Your task to perform on an android device: Open calendar and show me the third week of next month Image 0: 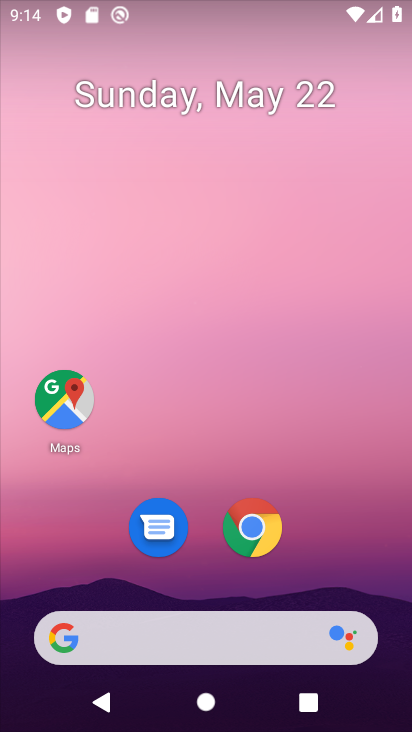
Step 0: drag from (333, 569) to (319, 70)
Your task to perform on an android device: Open calendar and show me the third week of next month Image 1: 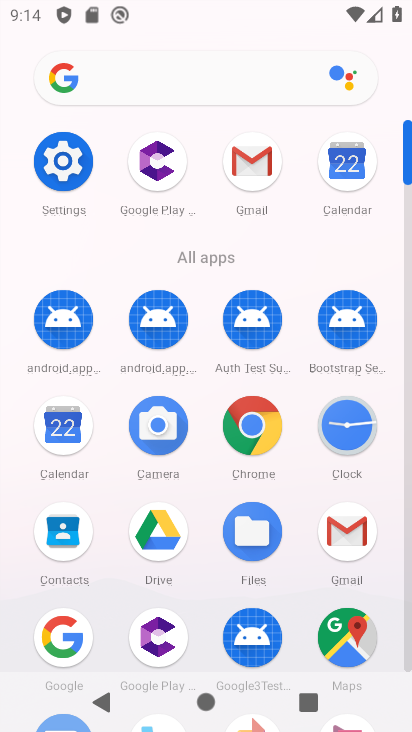
Step 1: click (55, 178)
Your task to perform on an android device: Open calendar and show me the third week of next month Image 2: 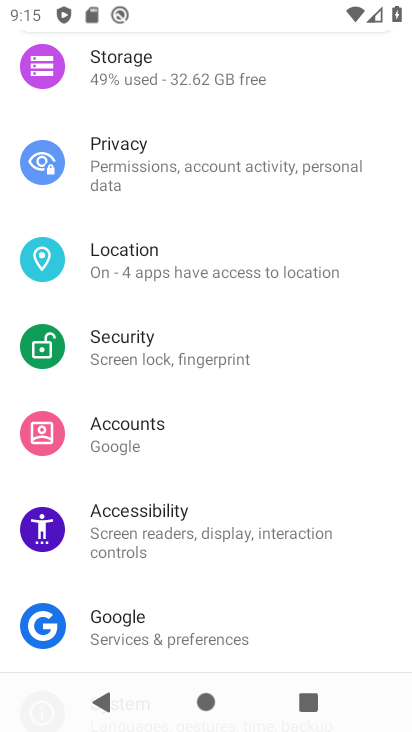
Step 2: press home button
Your task to perform on an android device: Open calendar and show me the third week of next month Image 3: 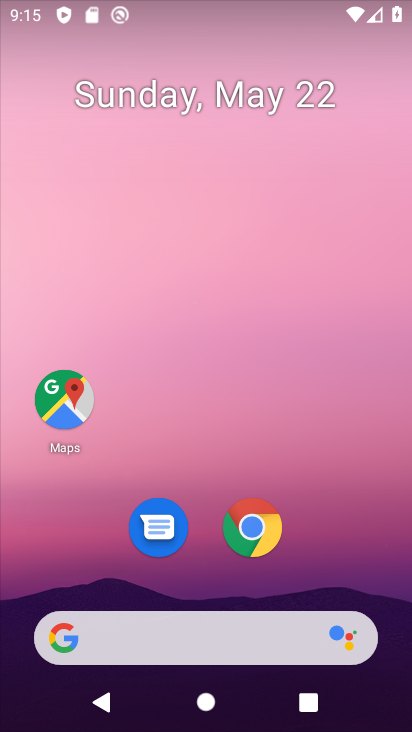
Step 3: drag from (364, 547) to (386, 239)
Your task to perform on an android device: Open calendar and show me the third week of next month Image 4: 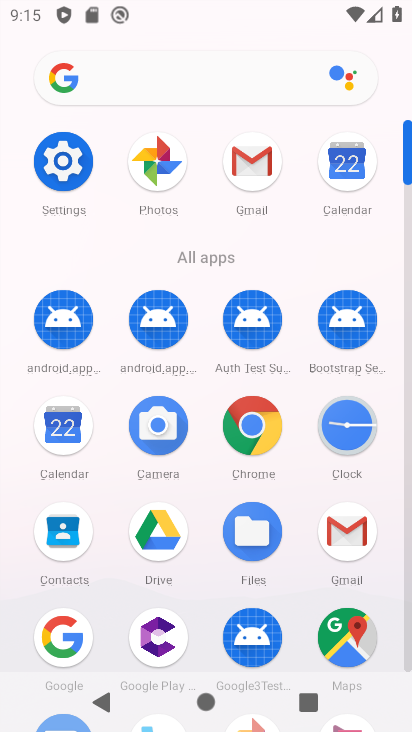
Step 4: click (341, 179)
Your task to perform on an android device: Open calendar and show me the third week of next month Image 5: 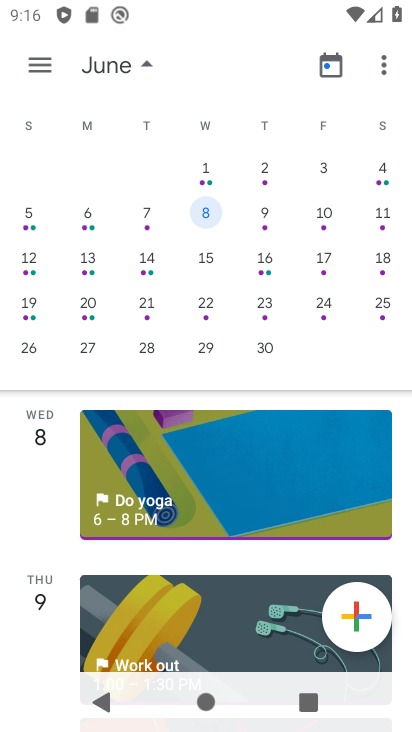
Step 5: click (179, 307)
Your task to perform on an android device: Open calendar and show me the third week of next month Image 6: 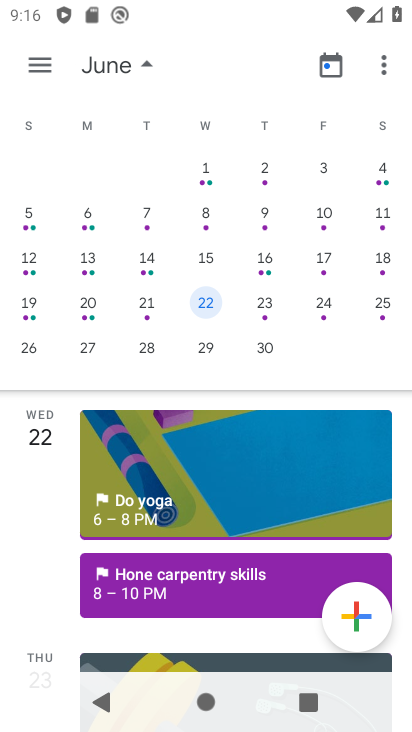
Step 6: task complete